Your task to perform on an android device: Go to Reddit.com Image 0: 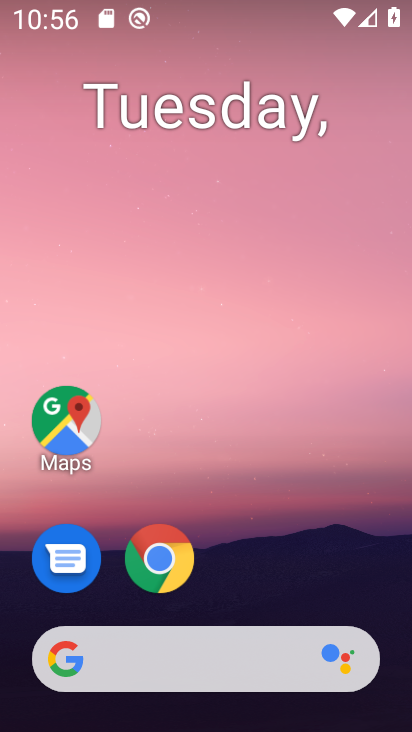
Step 0: drag from (378, 551) to (375, 131)
Your task to perform on an android device: Go to Reddit.com Image 1: 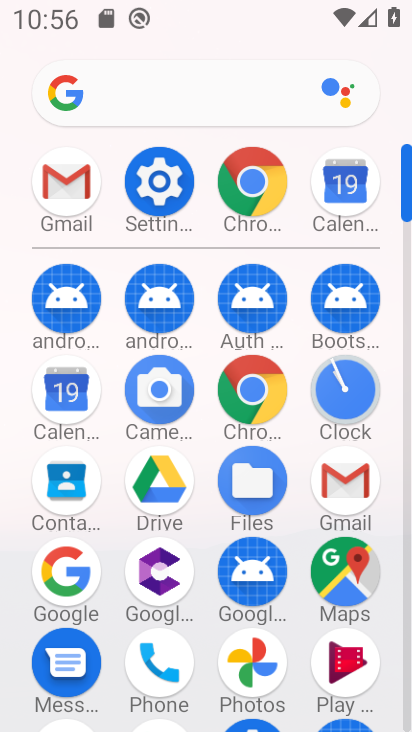
Step 1: click (238, 394)
Your task to perform on an android device: Go to Reddit.com Image 2: 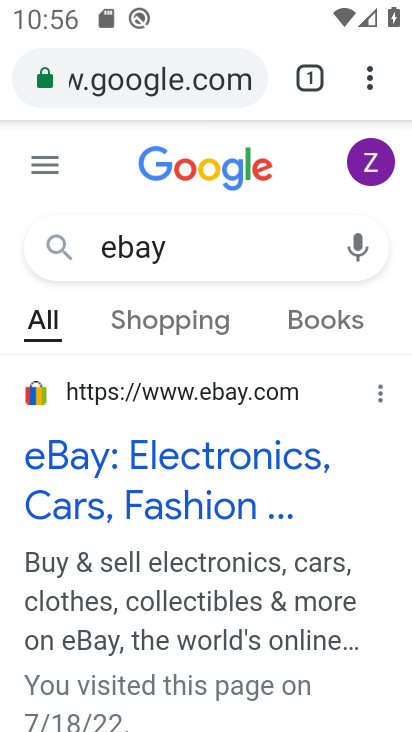
Step 2: click (203, 83)
Your task to perform on an android device: Go to Reddit.com Image 3: 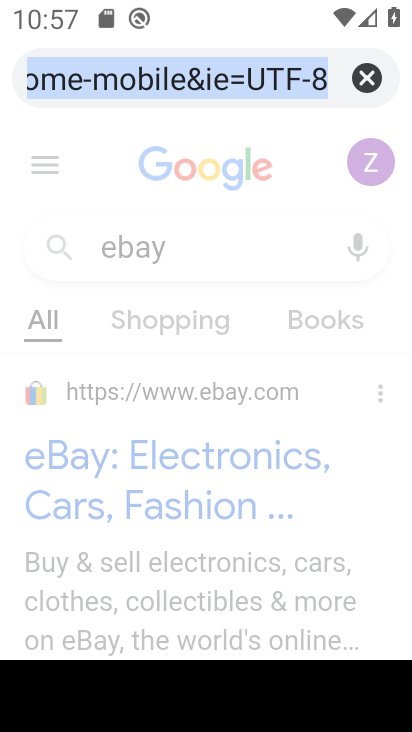
Step 3: type "reddit.com"
Your task to perform on an android device: Go to Reddit.com Image 4: 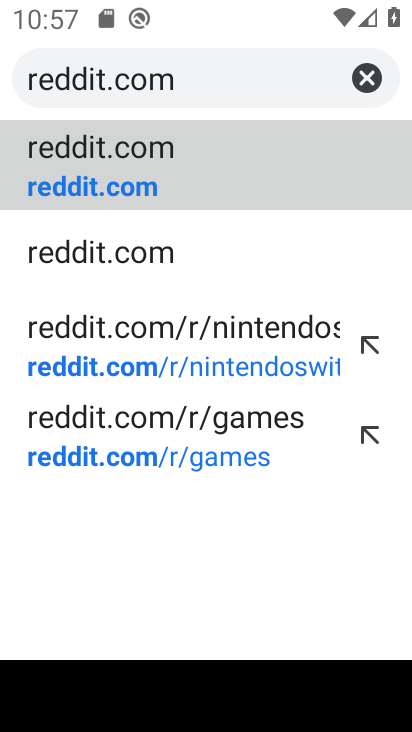
Step 4: click (210, 181)
Your task to perform on an android device: Go to Reddit.com Image 5: 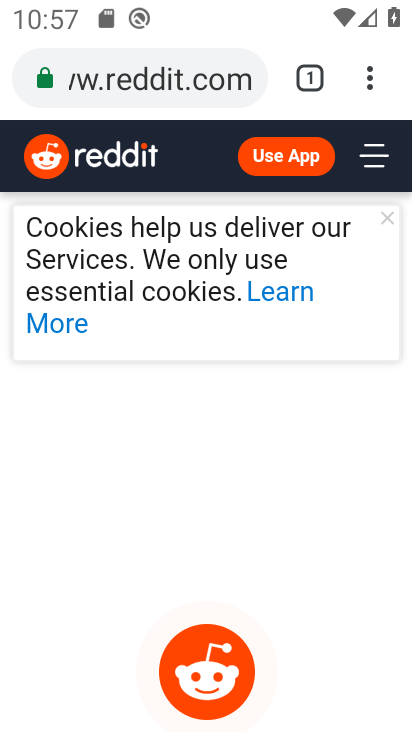
Step 5: task complete